Your task to perform on an android device: show emergency info Image 0: 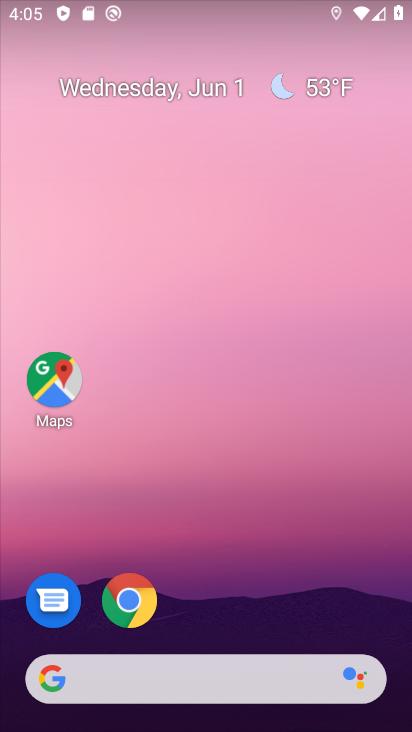
Step 0: drag from (196, 590) to (136, 216)
Your task to perform on an android device: show emergency info Image 1: 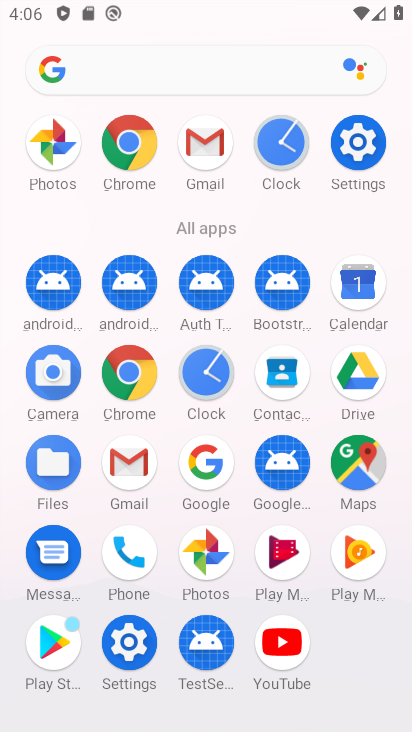
Step 1: click (122, 638)
Your task to perform on an android device: show emergency info Image 2: 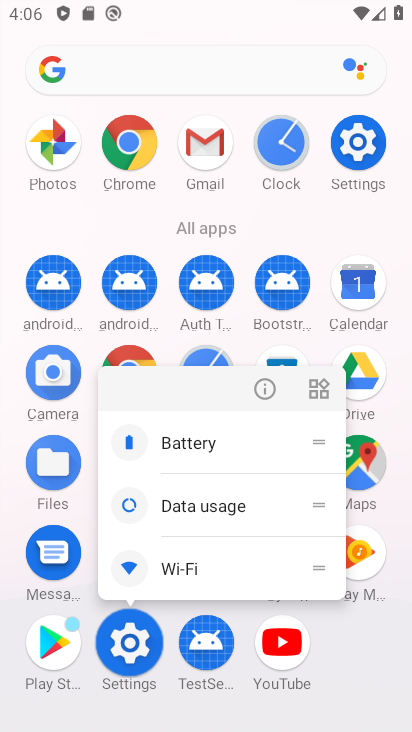
Step 2: click (118, 637)
Your task to perform on an android device: show emergency info Image 3: 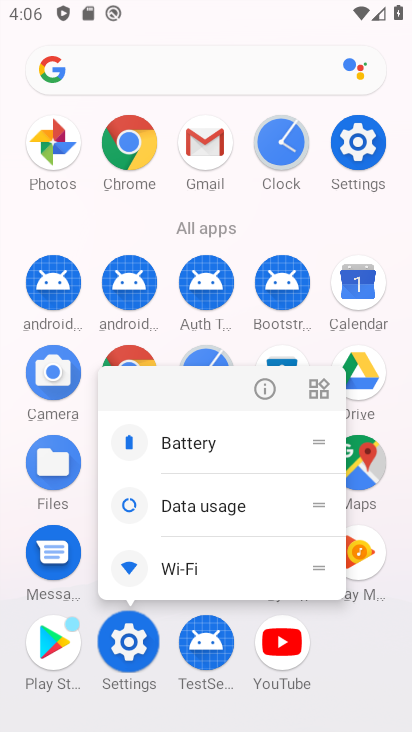
Step 3: click (96, 626)
Your task to perform on an android device: show emergency info Image 4: 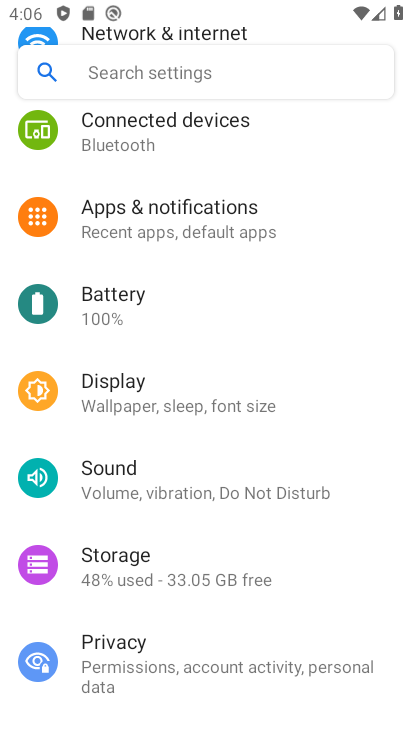
Step 4: drag from (161, 546) to (106, 329)
Your task to perform on an android device: show emergency info Image 5: 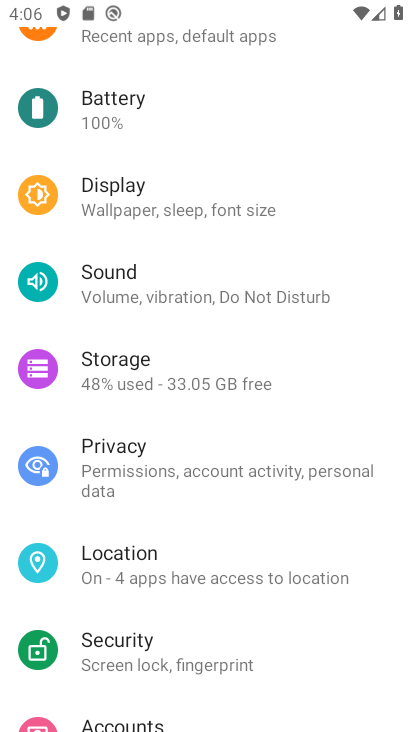
Step 5: drag from (158, 525) to (108, 230)
Your task to perform on an android device: show emergency info Image 6: 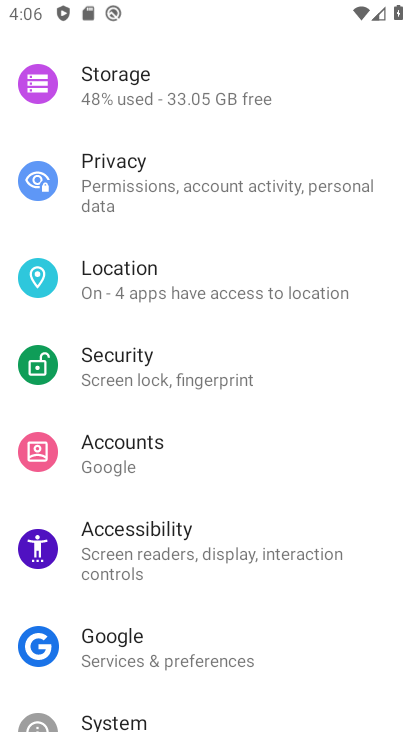
Step 6: drag from (124, 528) to (82, 160)
Your task to perform on an android device: show emergency info Image 7: 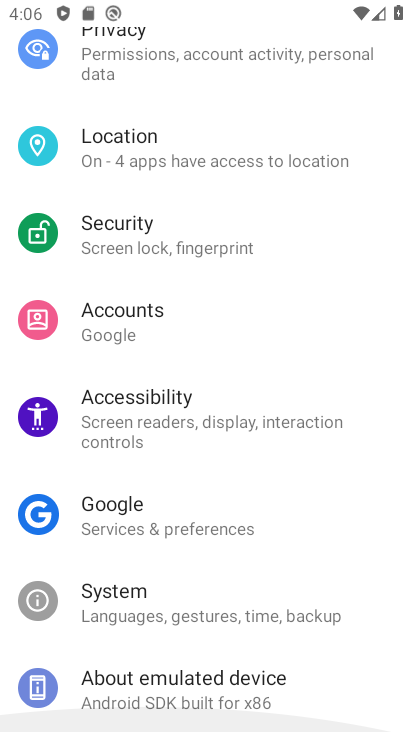
Step 7: drag from (255, 580) to (150, 36)
Your task to perform on an android device: show emergency info Image 8: 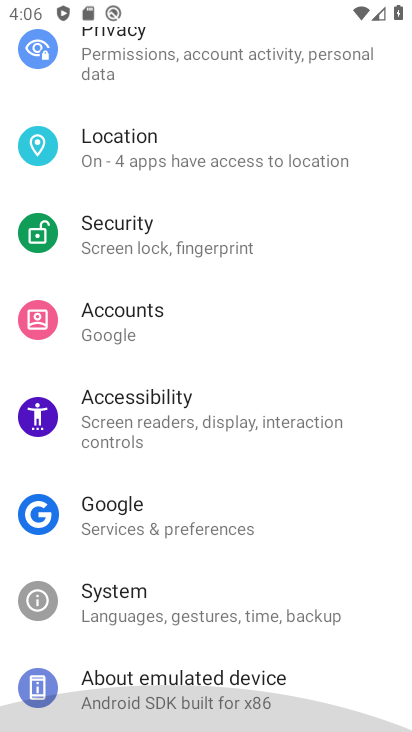
Step 8: drag from (216, 333) to (166, 56)
Your task to perform on an android device: show emergency info Image 9: 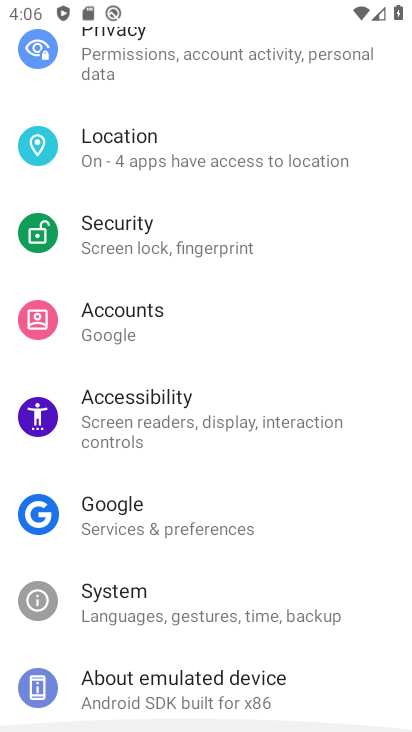
Step 9: drag from (137, 443) to (151, 131)
Your task to perform on an android device: show emergency info Image 10: 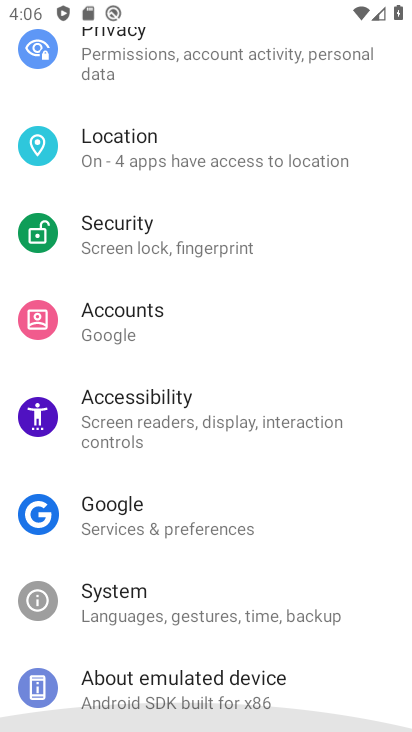
Step 10: drag from (216, 461) to (201, 83)
Your task to perform on an android device: show emergency info Image 11: 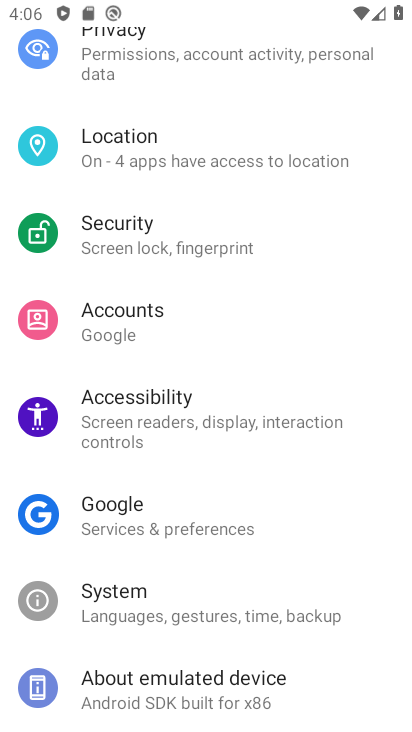
Step 11: click (171, 696)
Your task to perform on an android device: show emergency info Image 12: 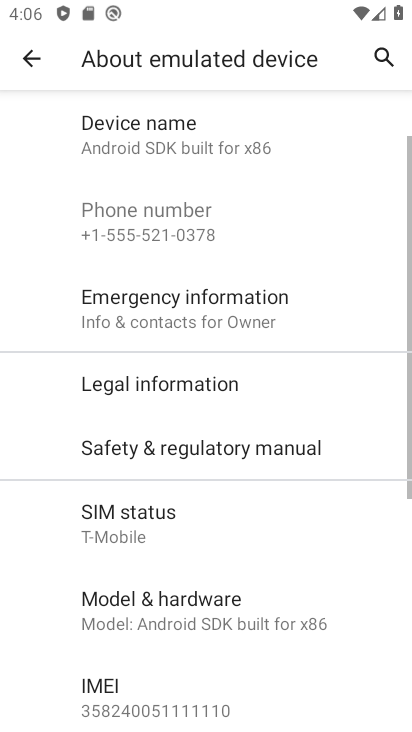
Step 12: task complete